Your task to perform on an android device: Open Yahoo.com Image 0: 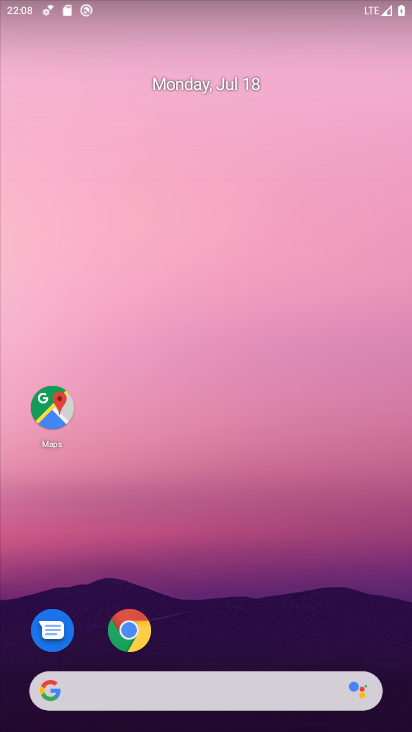
Step 0: click (127, 640)
Your task to perform on an android device: Open Yahoo.com Image 1: 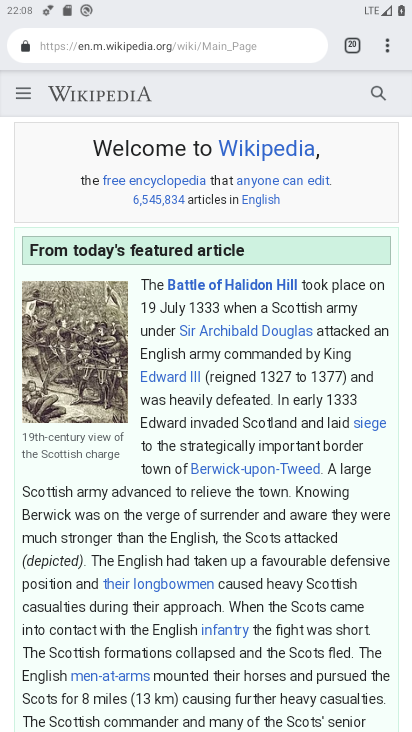
Step 1: click (388, 44)
Your task to perform on an android device: Open Yahoo.com Image 2: 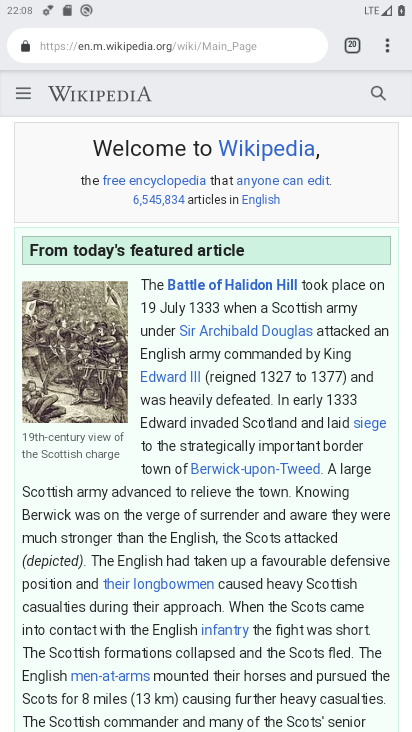
Step 2: click (388, 44)
Your task to perform on an android device: Open Yahoo.com Image 3: 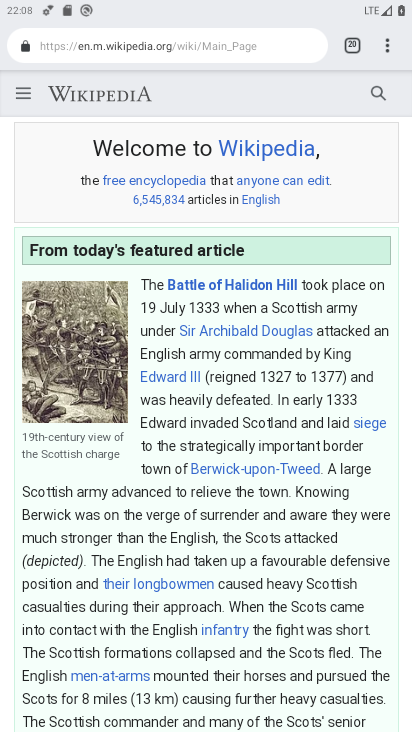
Step 3: click (383, 49)
Your task to perform on an android device: Open Yahoo.com Image 4: 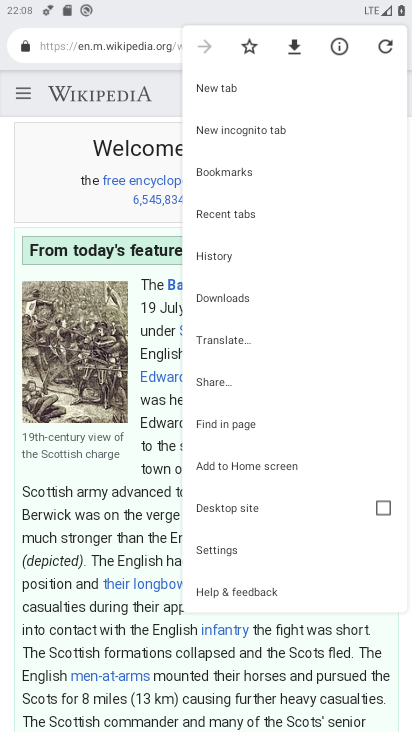
Step 4: click (223, 88)
Your task to perform on an android device: Open Yahoo.com Image 5: 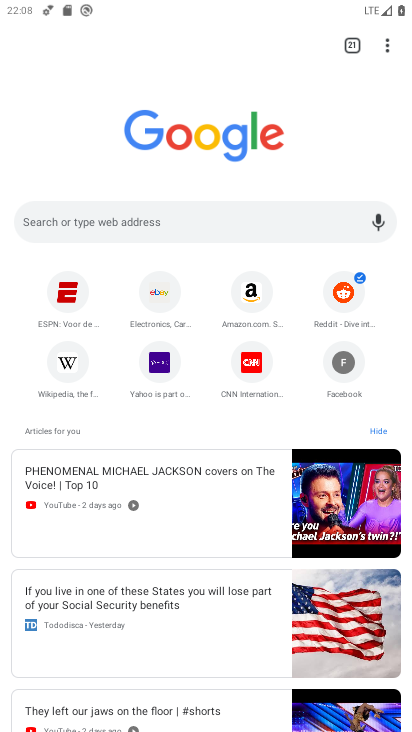
Step 5: click (154, 357)
Your task to perform on an android device: Open Yahoo.com Image 6: 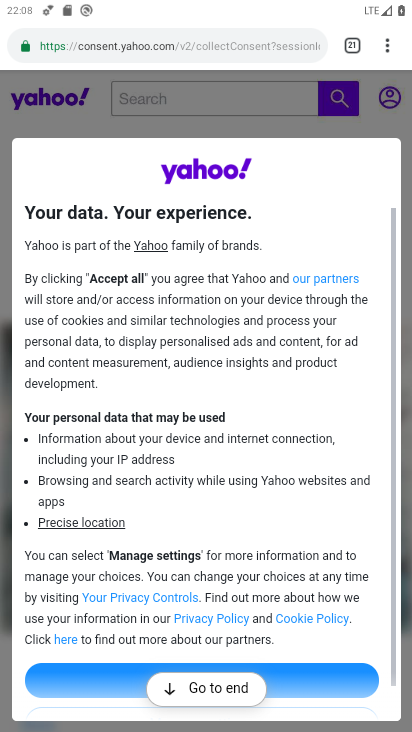
Step 6: task complete